Your task to perform on an android device: change text size in settings app Image 0: 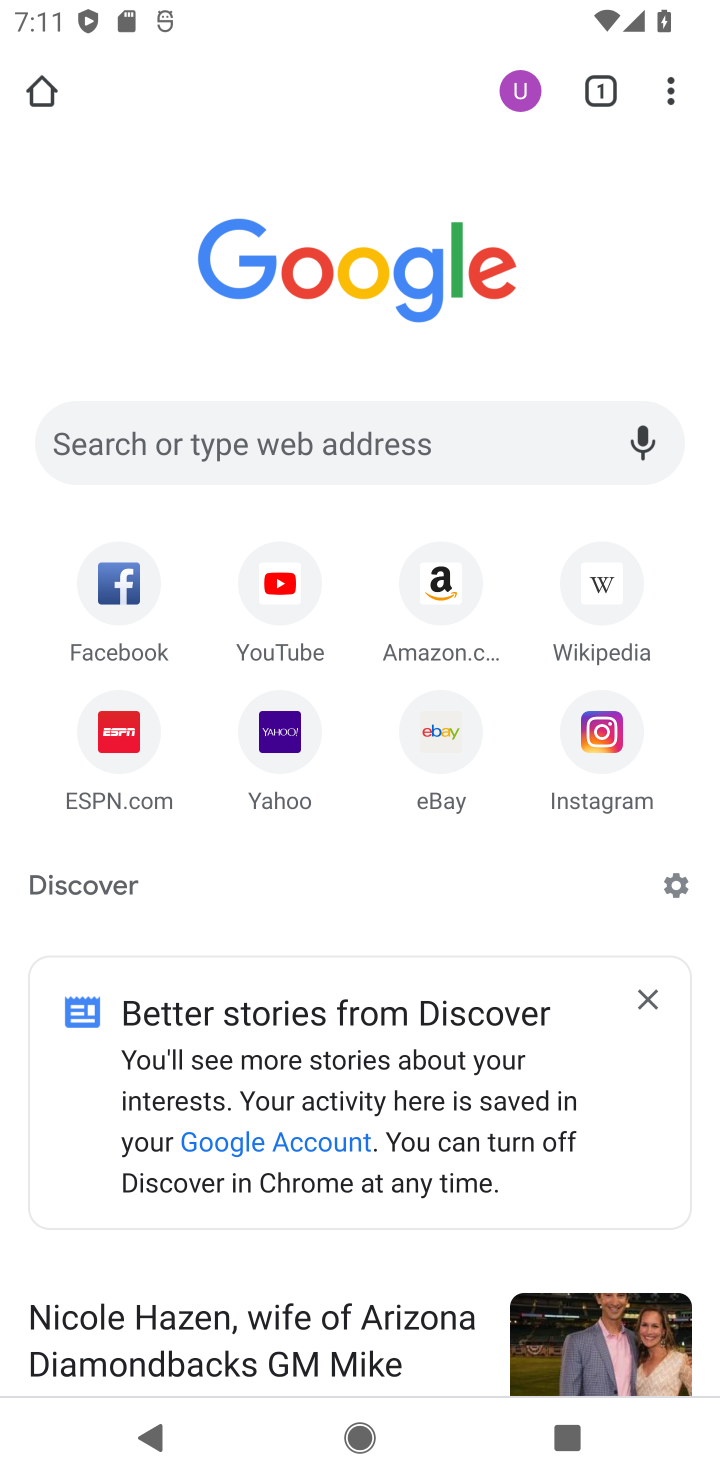
Step 0: press home button
Your task to perform on an android device: change text size in settings app Image 1: 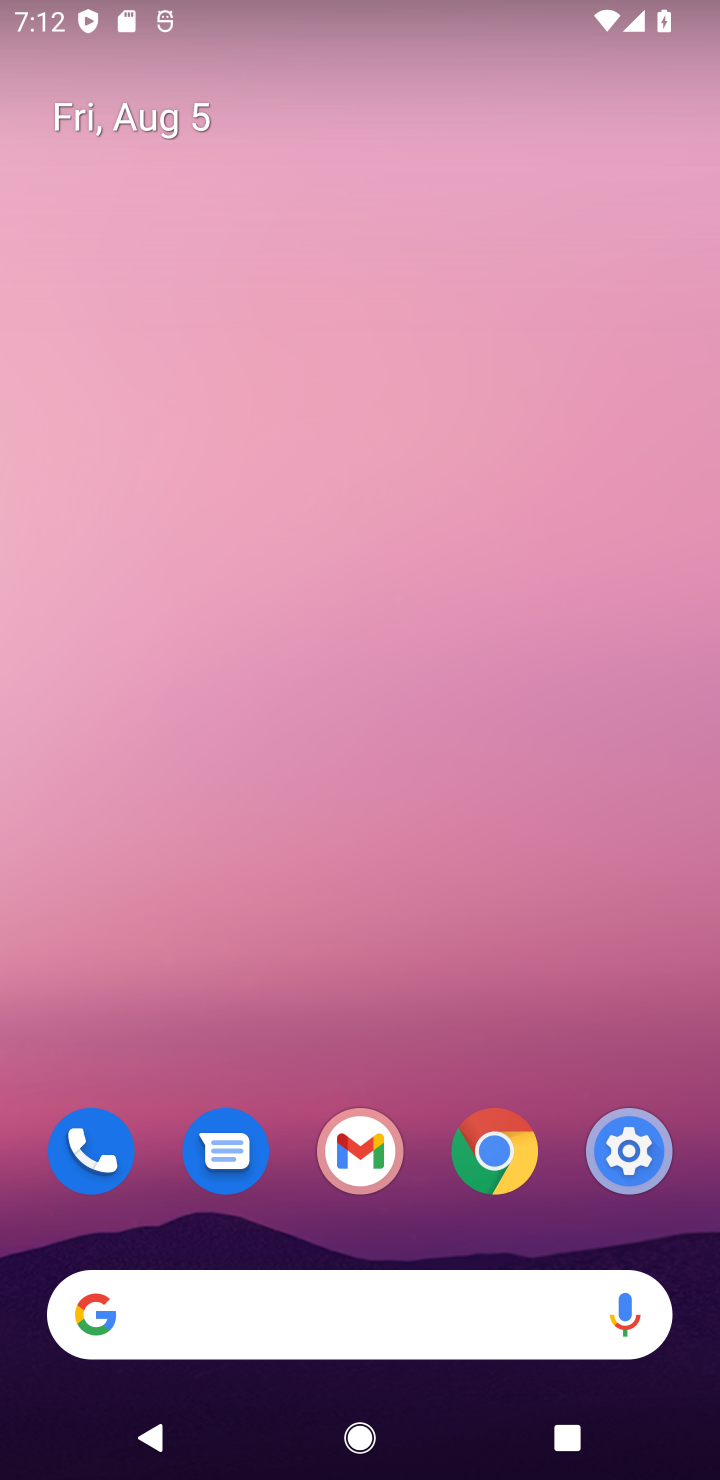
Step 1: drag from (365, 1188) to (312, 123)
Your task to perform on an android device: change text size in settings app Image 2: 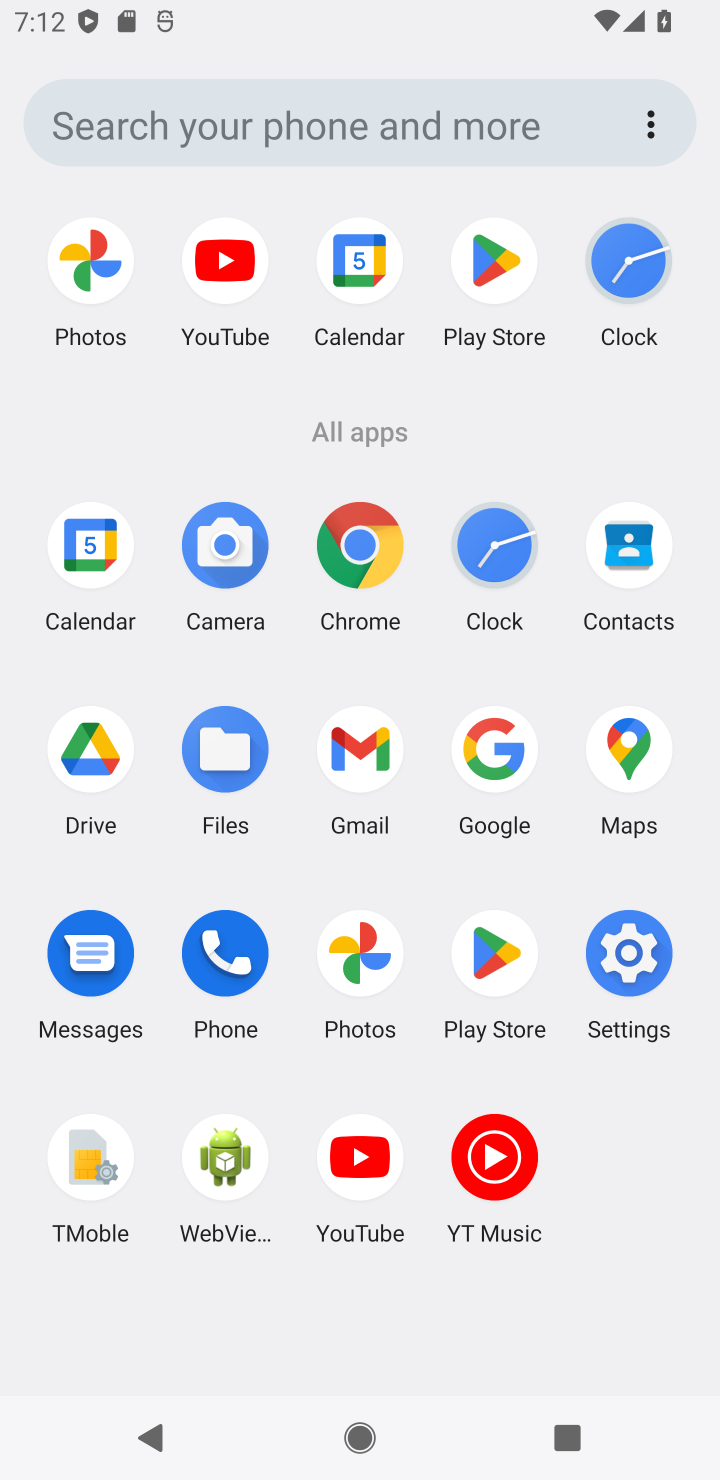
Step 2: click (608, 968)
Your task to perform on an android device: change text size in settings app Image 3: 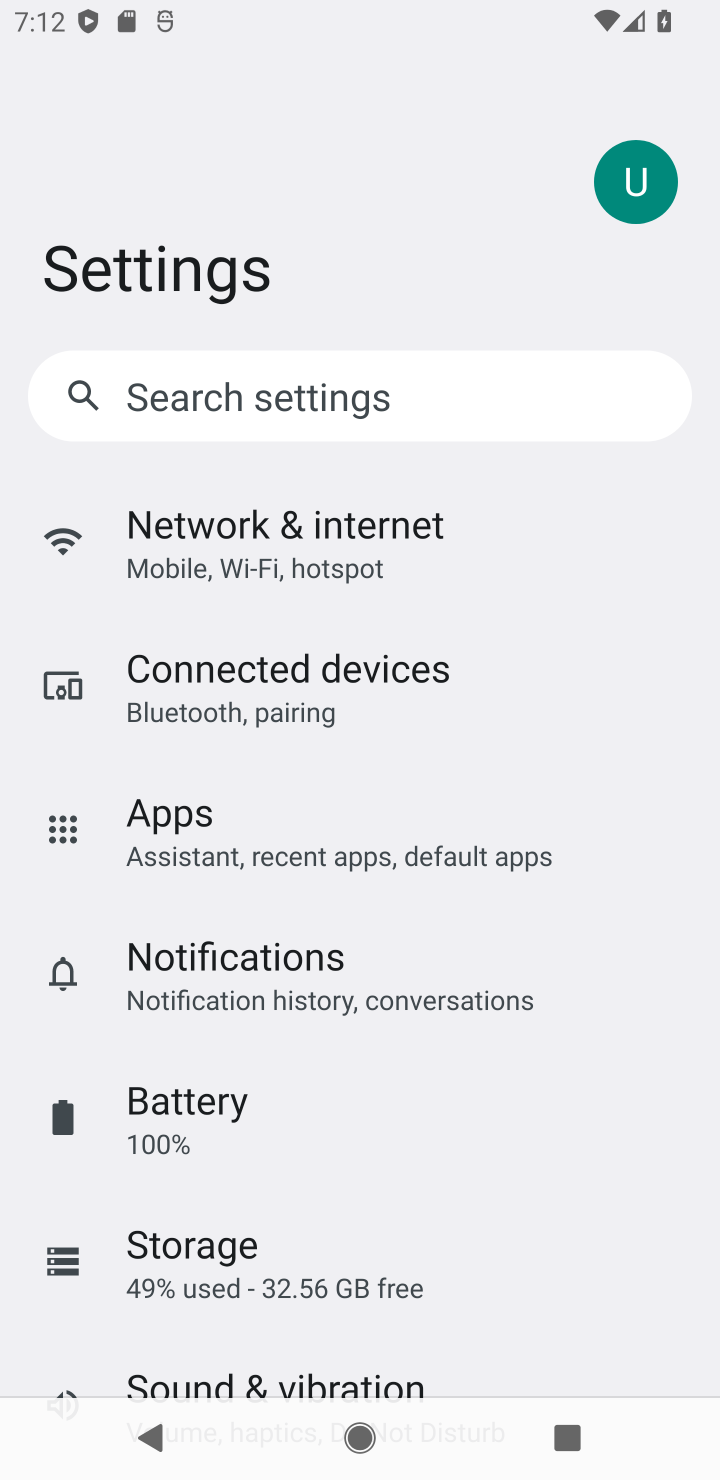
Step 3: drag from (298, 1255) to (176, 319)
Your task to perform on an android device: change text size in settings app Image 4: 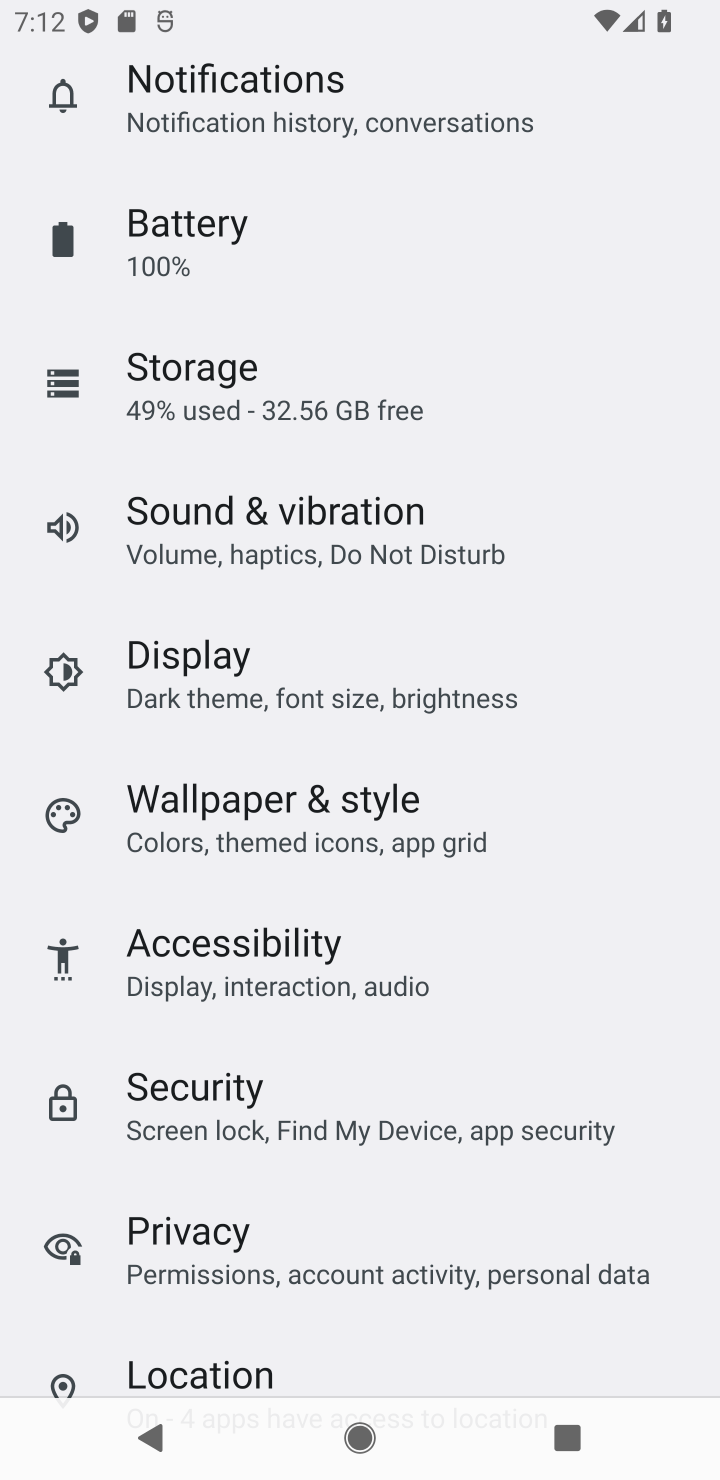
Step 4: click (230, 692)
Your task to perform on an android device: change text size in settings app Image 5: 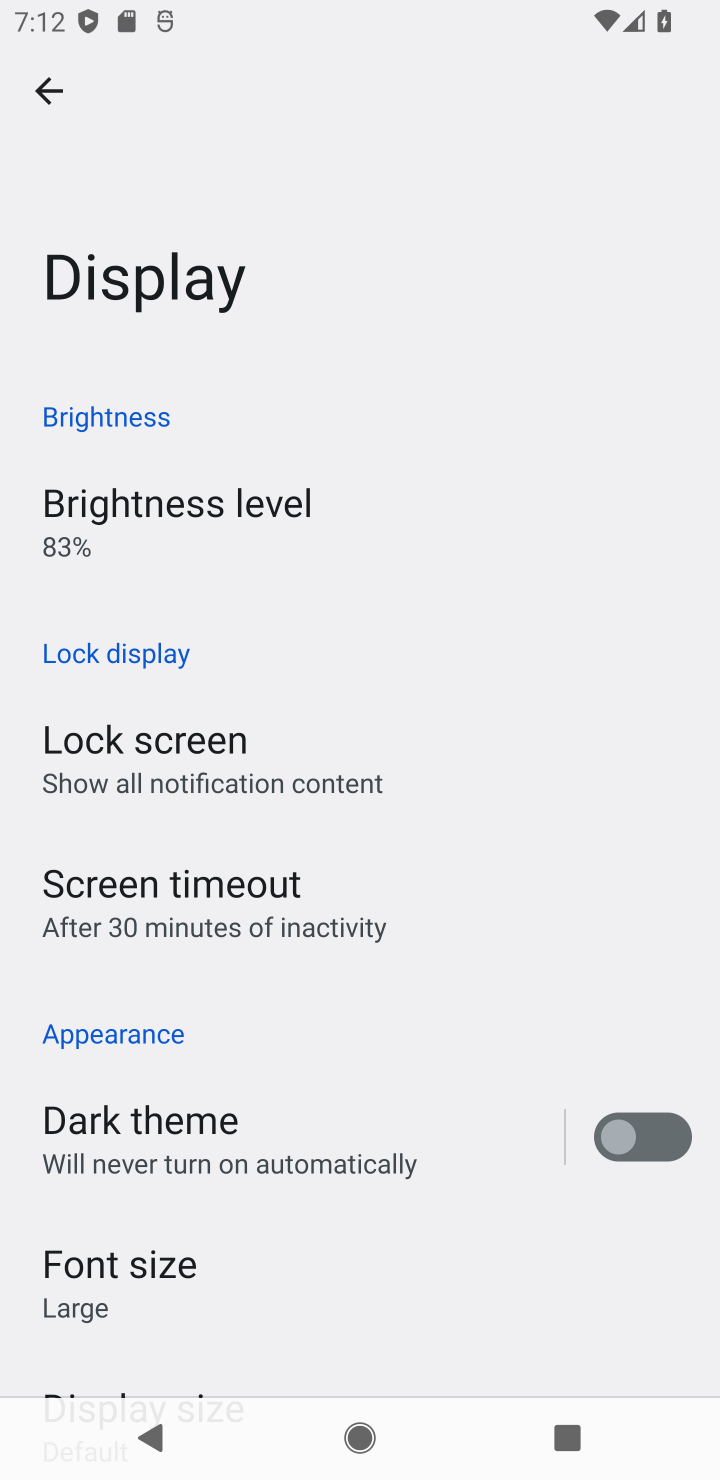
Step 5: drag from (187, 1083) to (176, 221)
Your task to perform on an android device: change text size in settings app Image 6: 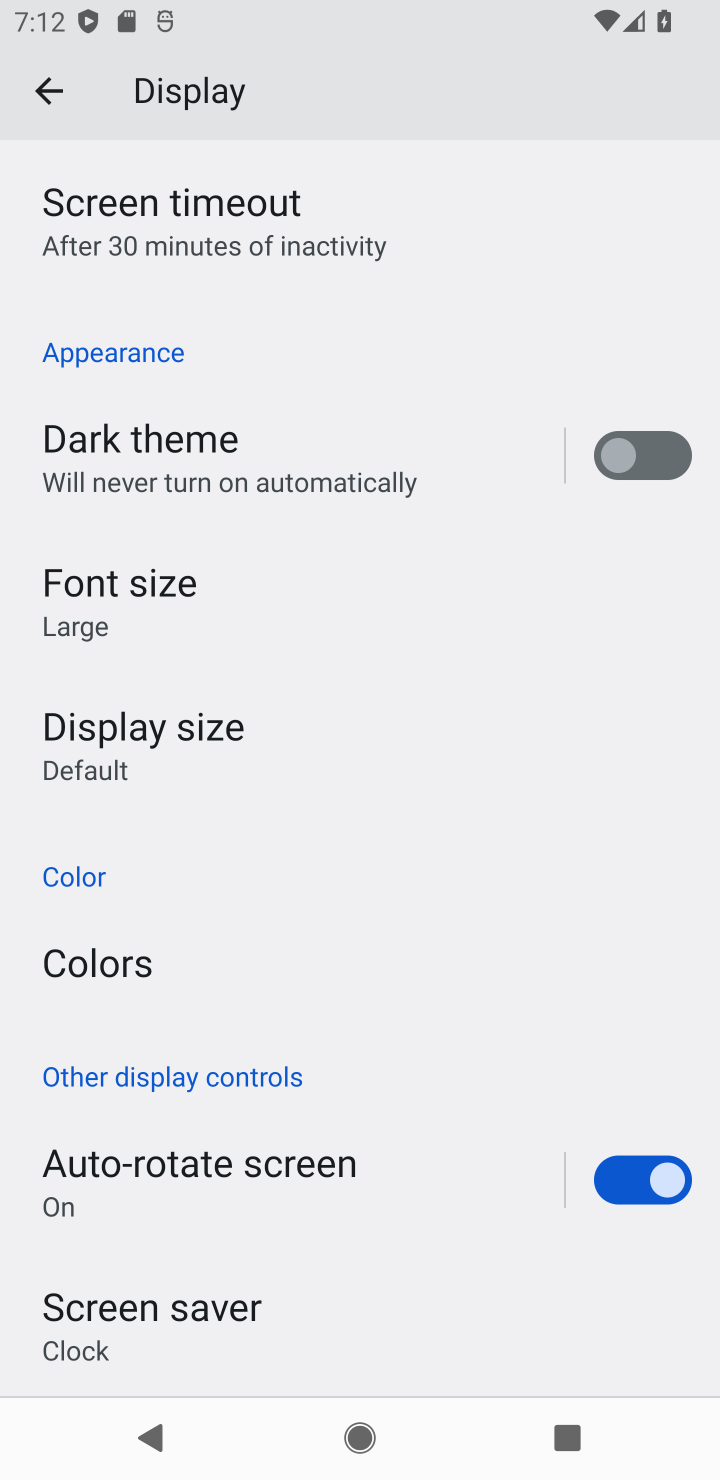
Step 6: drag from (349, 1116) to (325, 265)
Your task to perform on an android device: change text size in settings app Image 7: 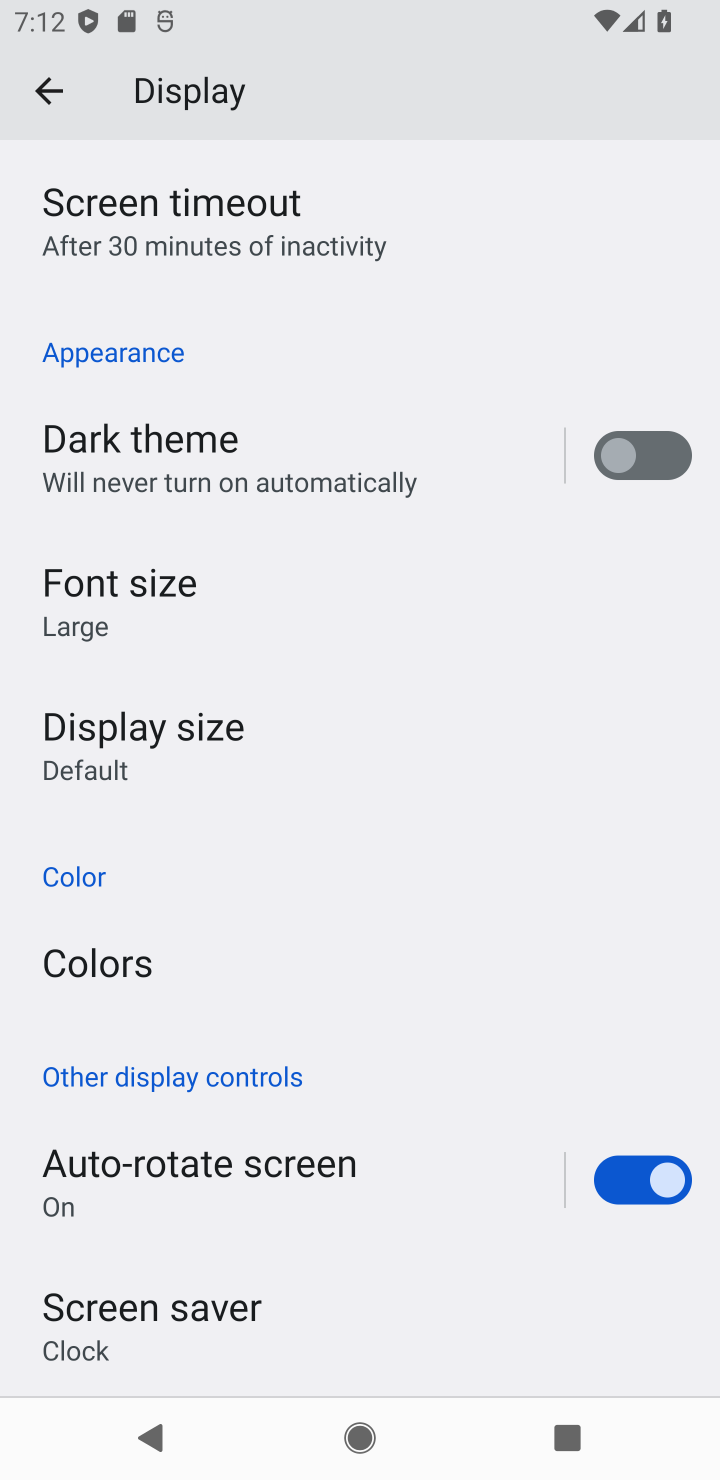
Step 7: click (168, 598)
Your task to perform on an android device: change text size in settings app Image 8: 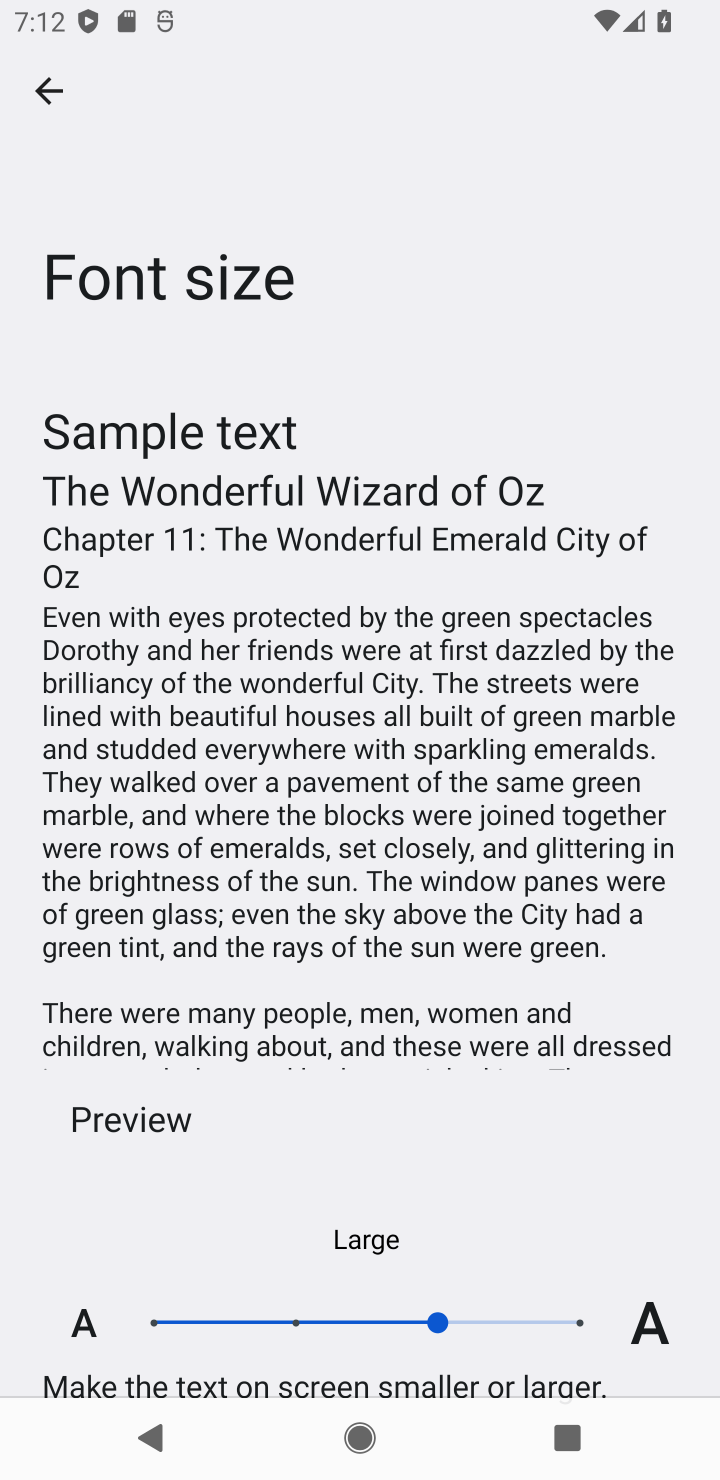
Step 8: click (297, 1318)
Your task to perform on an android device: change text size in settings app Image 9: 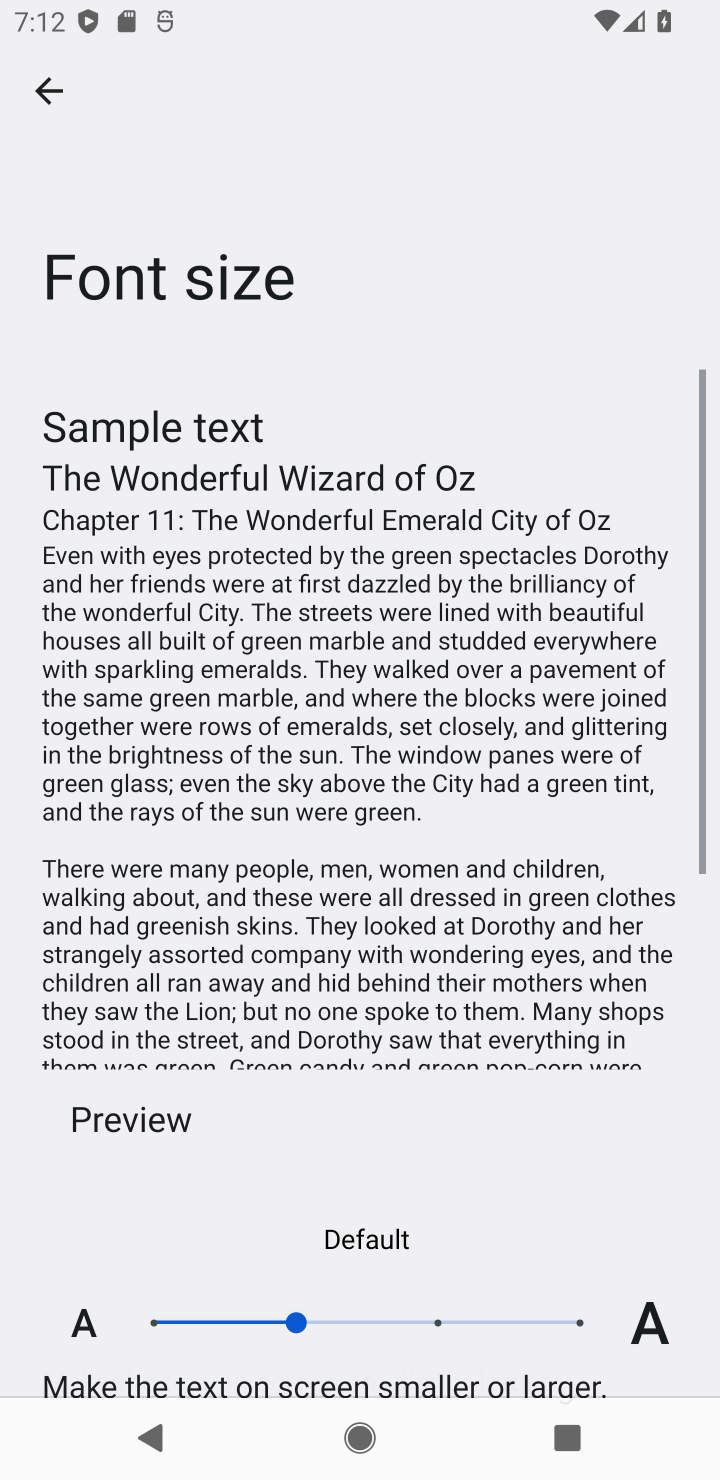
Step 9: task complete